Your task to perform on an android device: turn notification dots on Image 0: 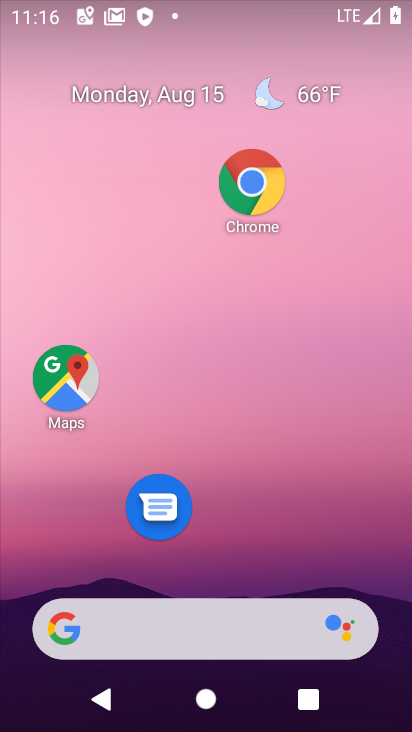
Step 0: drag from (310, 566) to (307, 127)
Your task to perform on an android device: turn notification dots on Image 1: 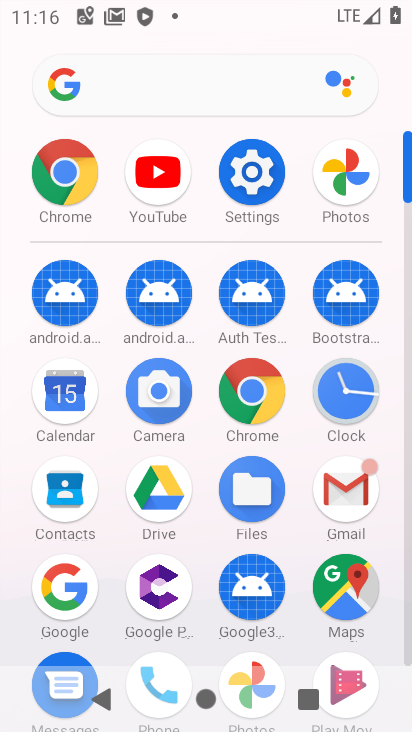
Step 1: click (254, 197)
Your task to perform on an android device: turn notification dots on Image 2: 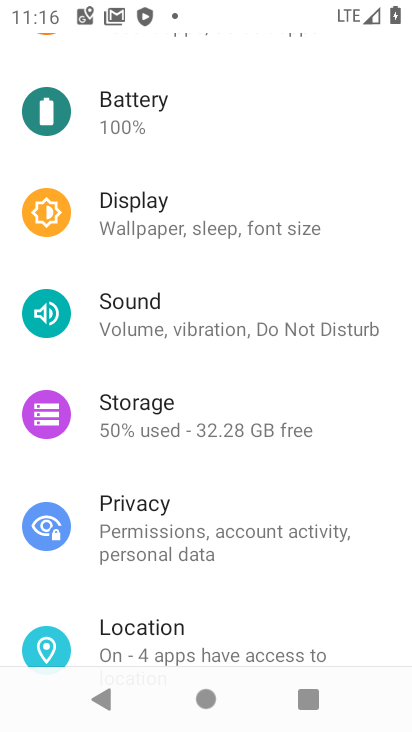
Step 2: task complete